Your task to perform on an android device: Is it going to rain today? Image 0: 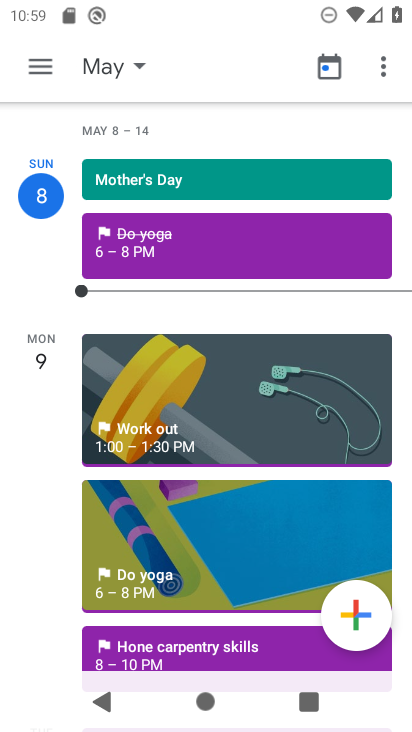
Step 0: press home button
Your task to perform on an android device: Is it going to rain today? Image 1: 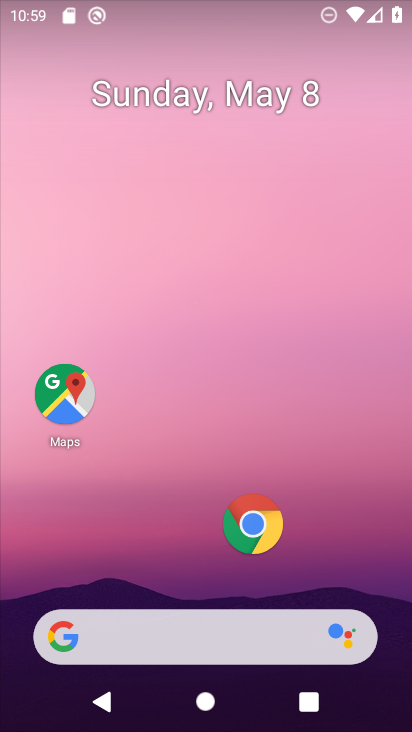
Step 1: click (175, 645)
Your task to perform on an android device: Is it going to rain today? Image 2: 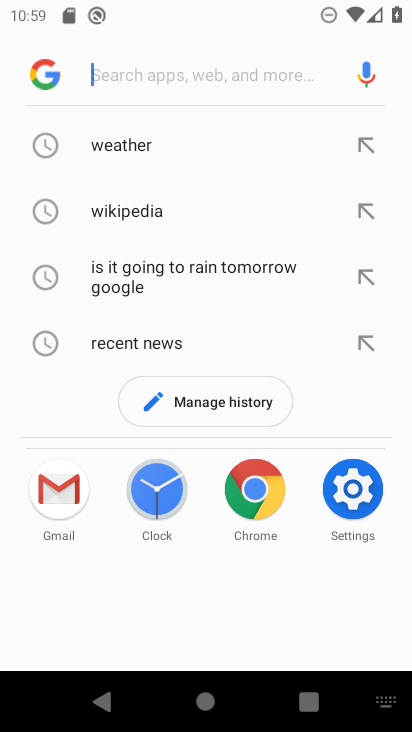
Step 2: click (91, 141)
Your task to perform on an android device: Is it going to rain today? Image 3: 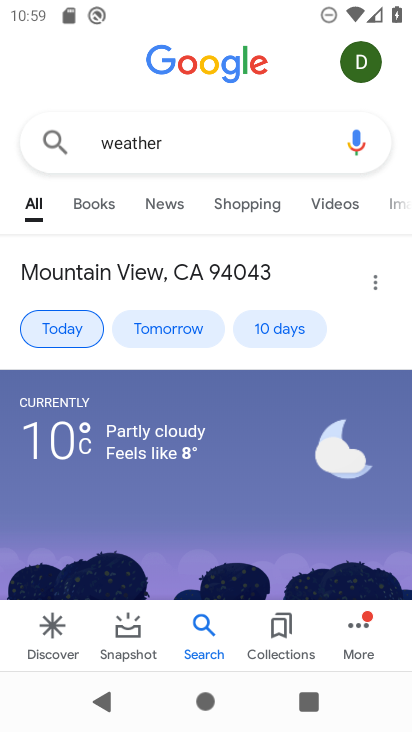
Step 3: drag from (235, 514) to (312, 129)
Your task to perform on an android device: Is it going to rain today? Image 4: 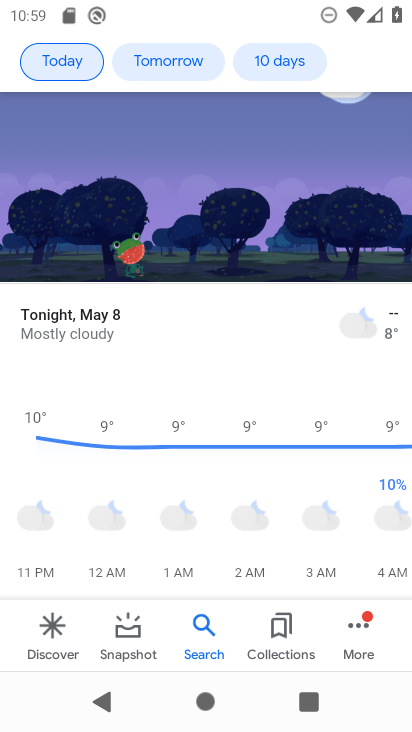
Step 4: drag from (269, 541) to (298, 151)
Your task to perform on an android device: Is it going to rain today? Image 5: 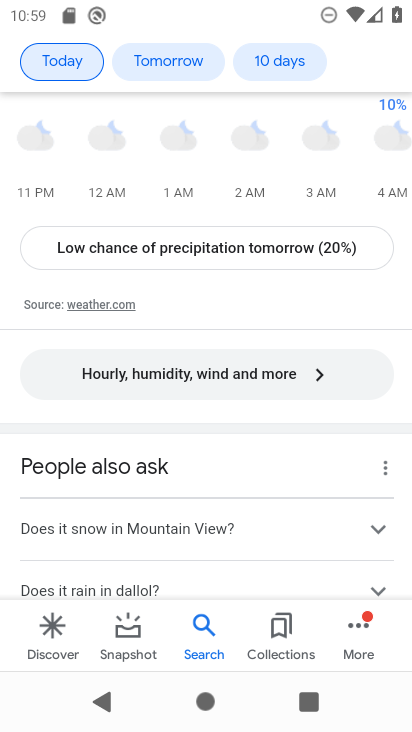
Step 5: click (74, 60)
Your task to perform on an android device: Is it going to rain today? Image 6: 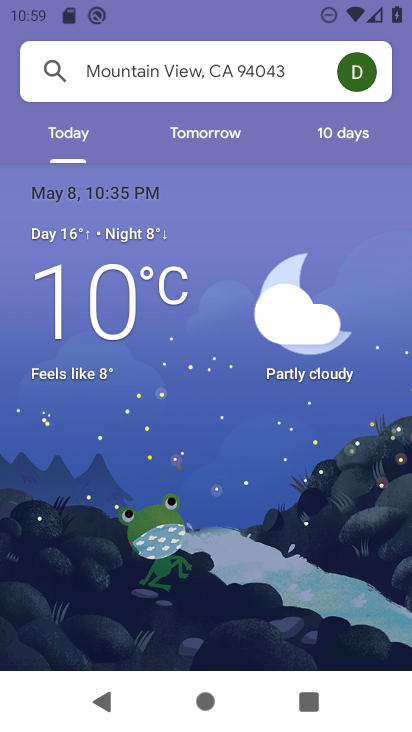
Step 6: task complete